Your task to perform on an android device: Open Yahoo.com Image 0: 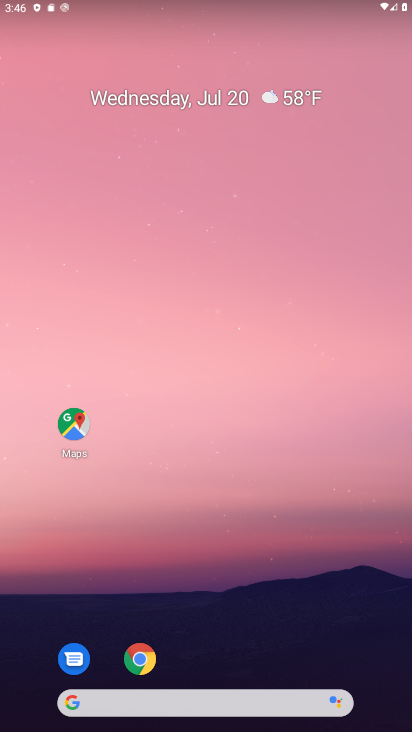
Step 0: drag from (274, 653) to (247, 208)
Your task to perform on an android device: Open Yahoo.com Image 1: 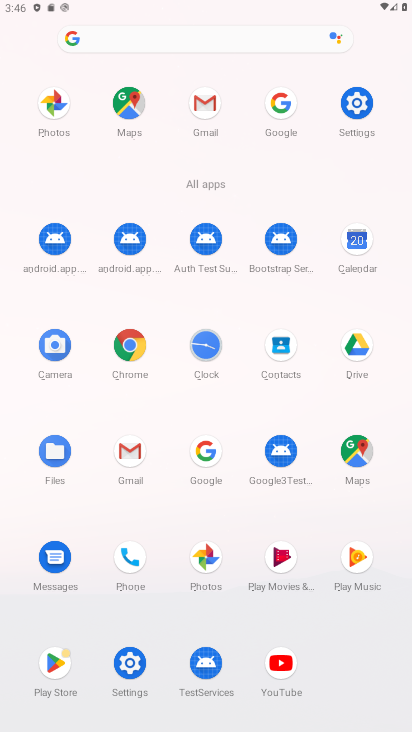
Step 1: click (130, 342)
Your task to perform on an android device: Open Yahoo.com Image 2: 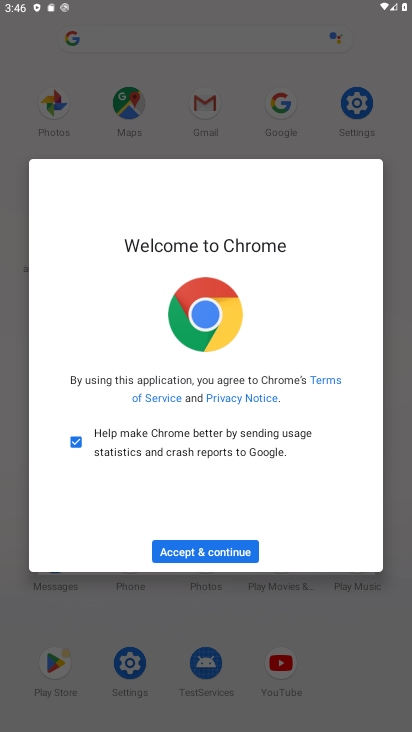
Step 2: click (211, 545)
Your task to perform on an android device: Open Yahoo.com Image 3: 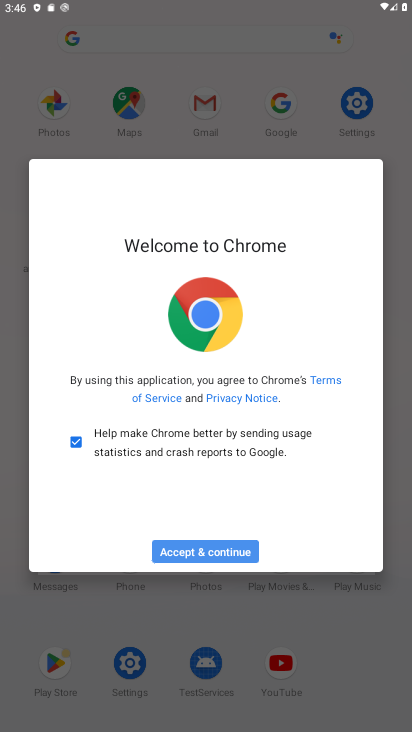
Step 3: click (218, 550)
Your task to perform on an android device: Open Yahoo.com Image 4: 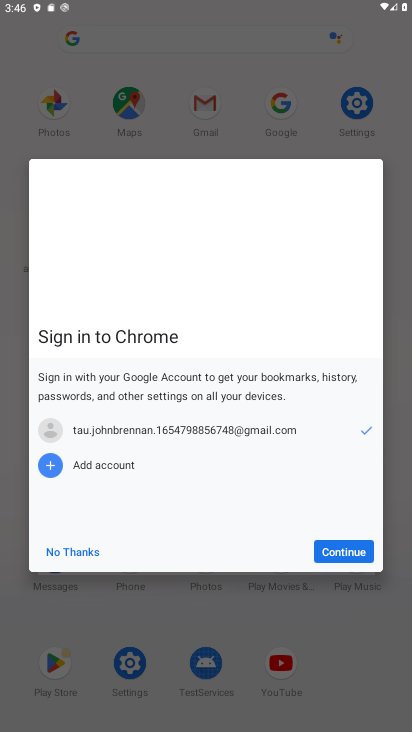
Step 4: click (358, 551)
Your task to perform on an android device: Open Yahoo.com Image 5: 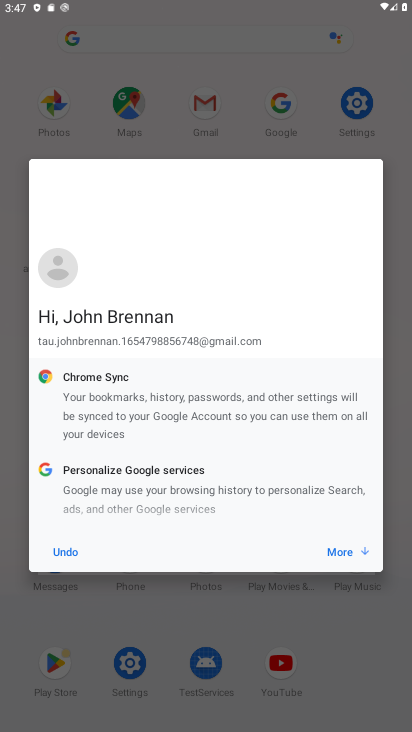
Step 5: click (34, 554)
Your task to perform on an android device: Open Yahoo.com Image 6: 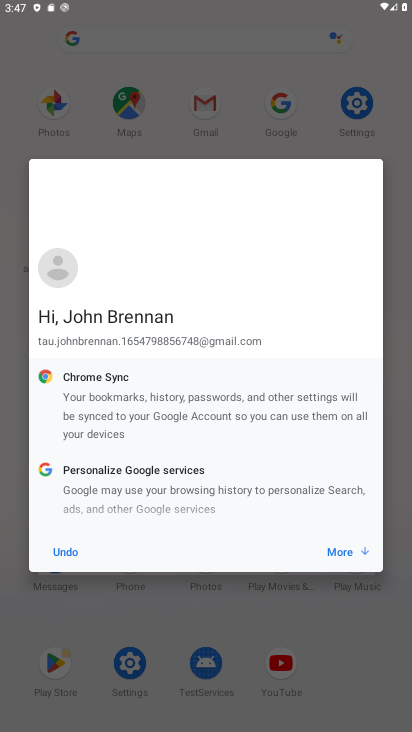
Step 6: click (64, 560)
Your task to perform on an android device: Open Yahoo.com Image 7: 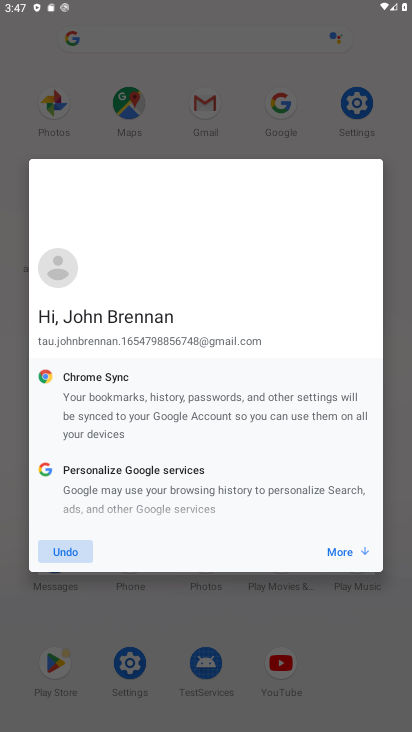
Step 7: click (67, 549)
Your task to perform on an android device: Open Yahoo.com Image 8: 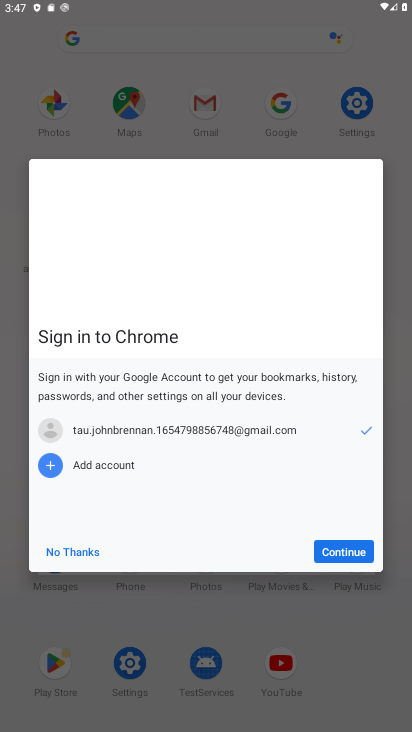
Step 8: click (67, 549)
Your task to perform on an android device: Open Yahoo.com Image 9: 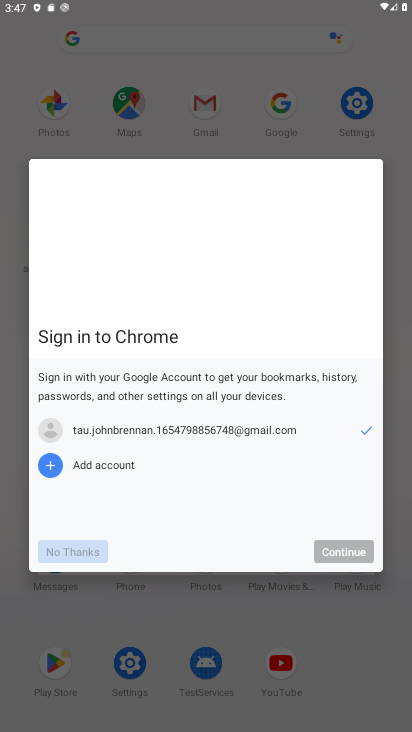
Step 9: click (67, 549)
Your task to perform on an android device: Open Yahoo.com Image 10: 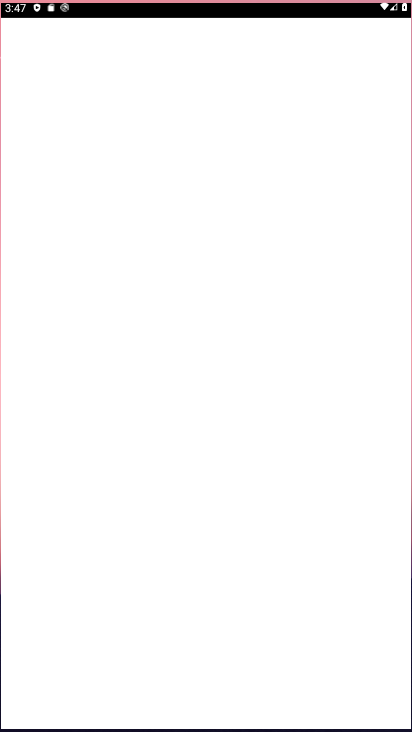
Step 10: click (67, 548)
Your task to perform on an android device: Open Yahoo.com Image 11: 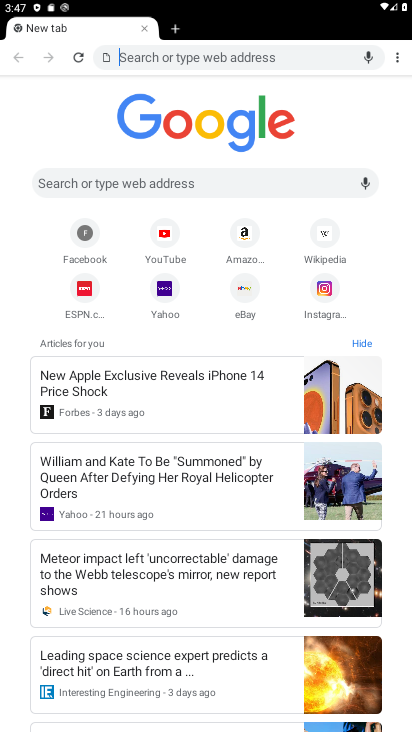
Step 11: click (167, 291)
Your task to perform on an android device: Open Yahoo.com Image 12: 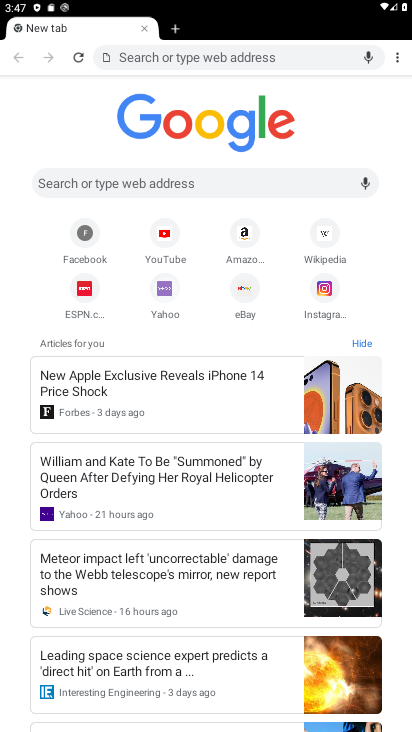
Step 12: click (167, 291)
Your task to perform on an android device: Open Yahoo.com Image 13: 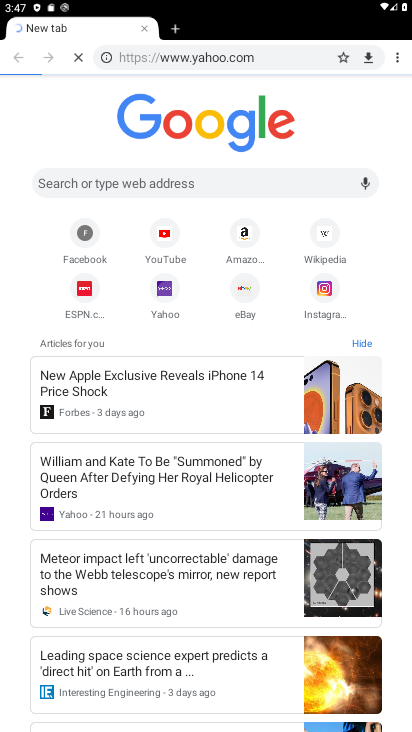
Step 13: click (167, 291)
Your task to perform on an android device: Open Yahoo.com Image 14: 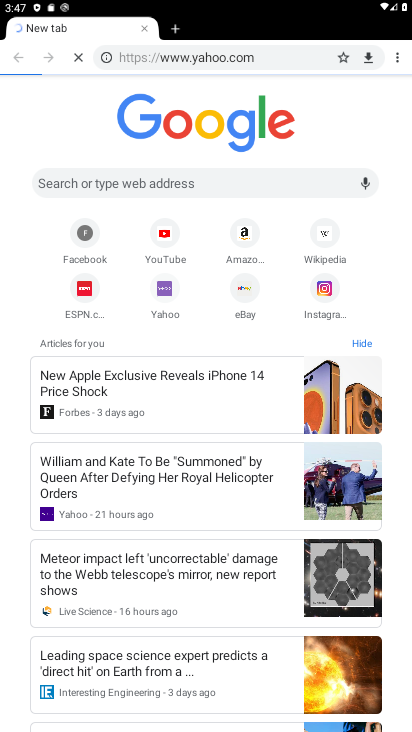
Step 14: click (166, 293)
Your task to perform on an android device: Open Yahoo.com Image 15: 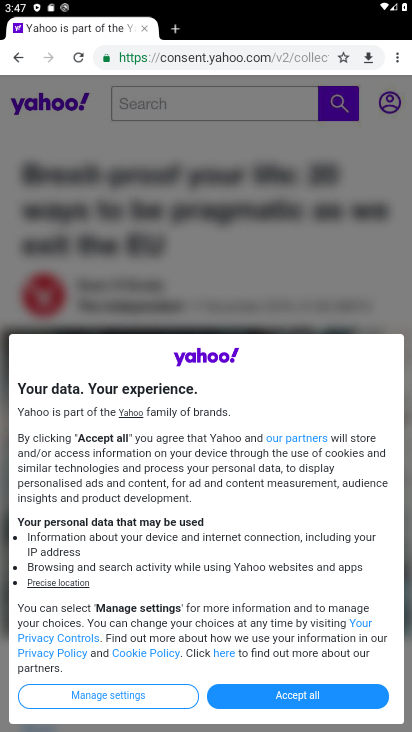
Step 15: task complete